Your task to perform on an android device: What's the weather going to be tomorrow? Image 0: 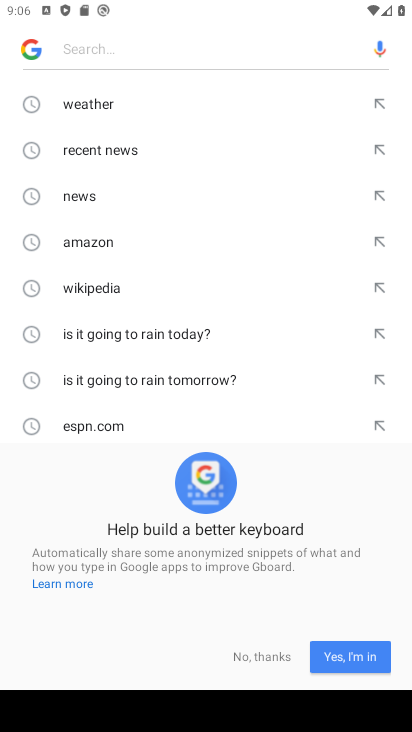
Step 0: press home button
Your task to perform on an android device: What's the weather going to be tomorrow? Image 1: 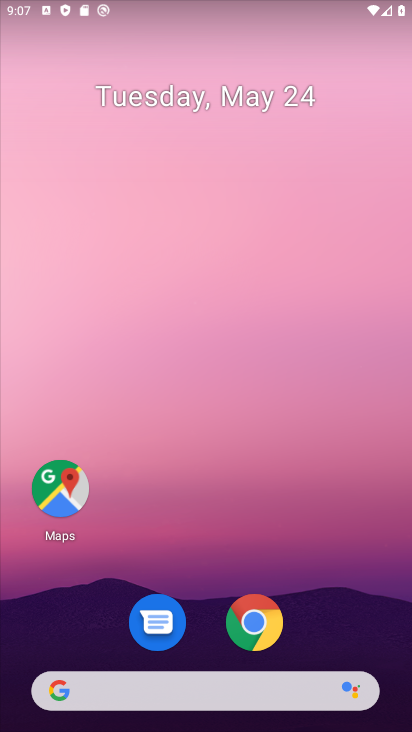
Step 1: drag from (216, 629) to (293, 15)
Your task to perform on an android device: What's the weather going to be tomorrow? Image 2: 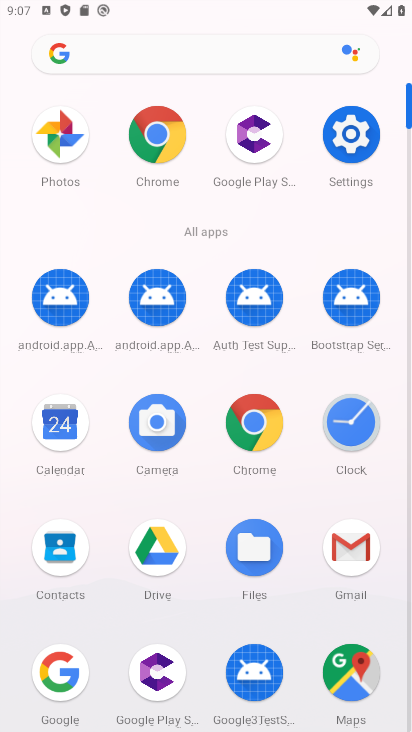
Step 2: click (129, 58)
Your task to perform on an android device: What's the weather going to be tomorrow? Image 3: 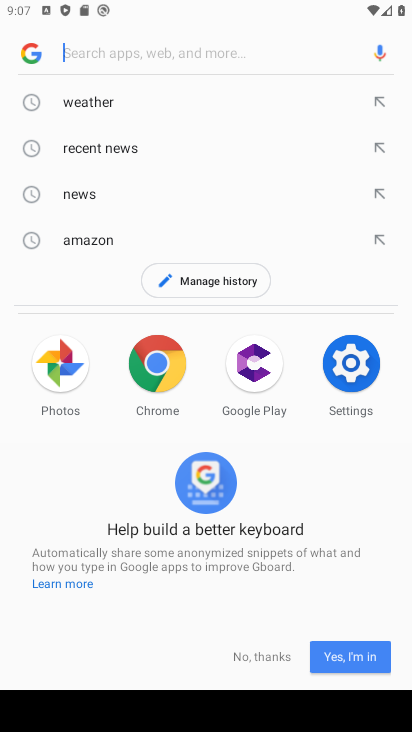
Step 3: click (82, 99)
Your task to perform on an android device: What's the weather going to be tomorrow? Image 4: 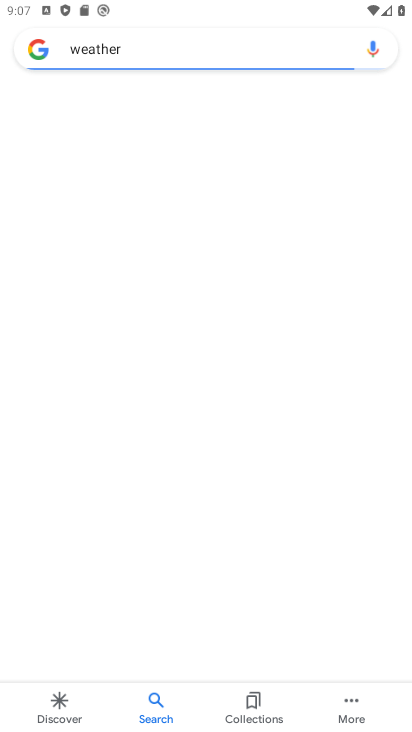
Step 4: task complete